Your task to perform on an android device: turn on improve location accuracy Image 0: 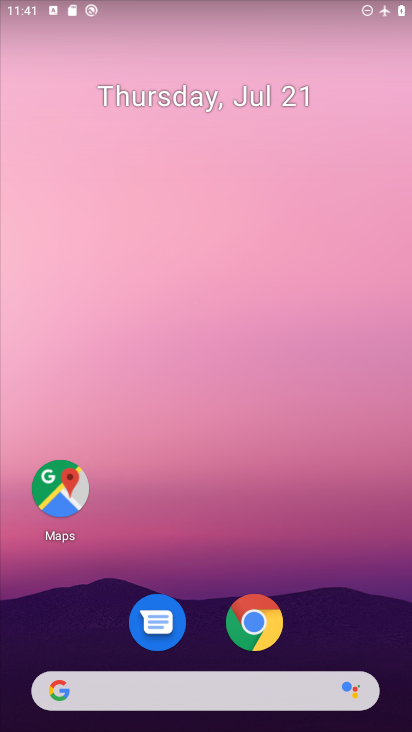
Step 0: drag from (154, 484) to (302, 120)
Your task to perform on an android device: turn on improve location accuracy Image 1: 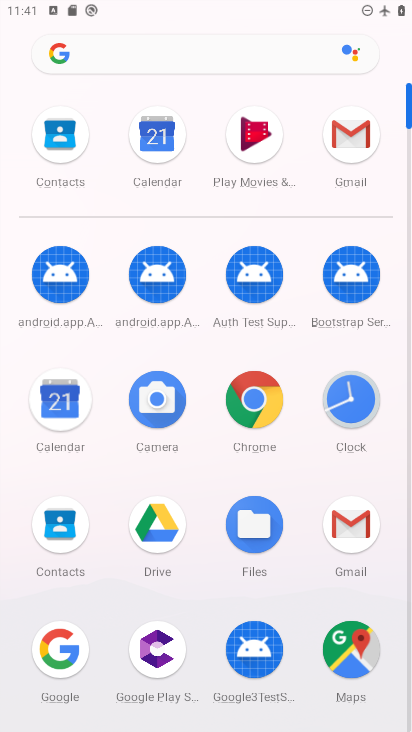
Step 1: drag from (210, 547) to (355, 29)
Your task to perform on an android device: turn on improve location accuracy Image 2: 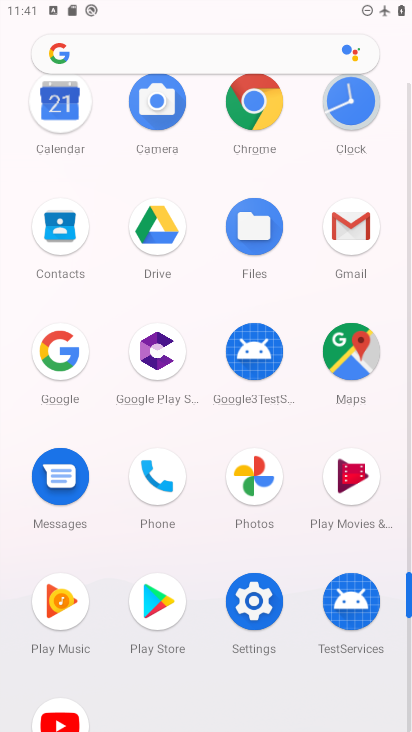
Step 2: click (269, 590)
Your task to perform on an android device: turn on improve location accuracy Image 3: 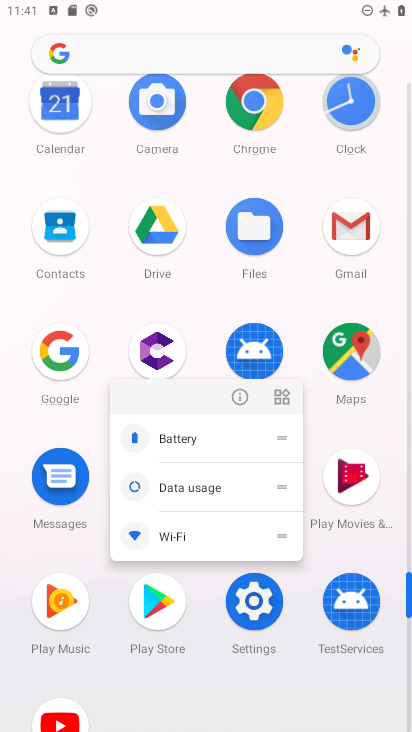
Step 3: click (269, 590)
Your task to perform on an android device: turn on improve location accuracy Image 4: 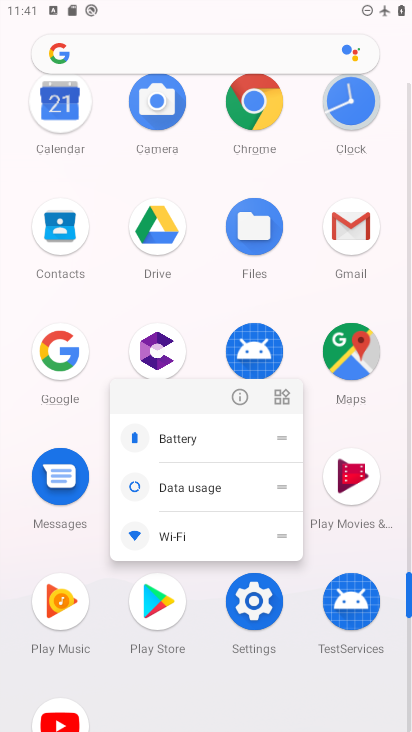
Step 4: click (269, 590)
Your task to perform on an android device: turn on improve location accuracy Image 5: 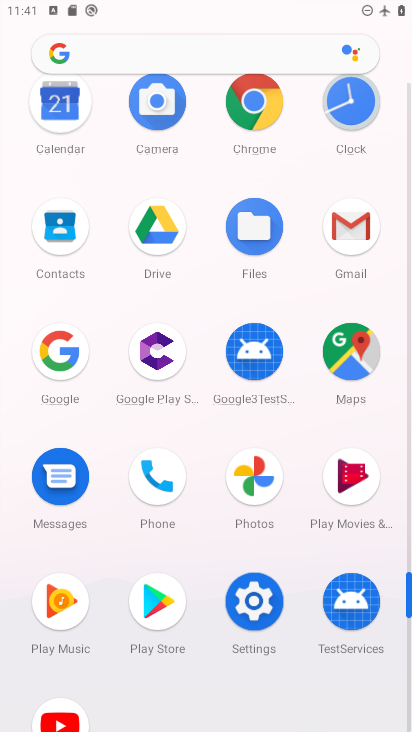
Step 5: click (269, 590)
Your task to perform on an android device: turn on improve location accuracy Image 6: 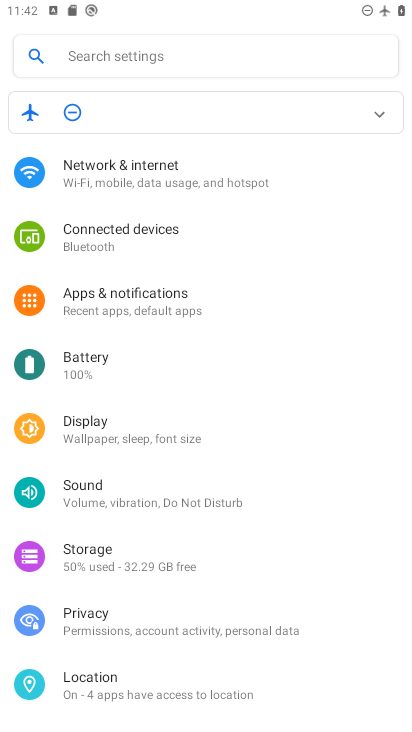
Step 6: click (111, 685)
Your task to perform on an android device: turn on improve location accuracy Image 7: 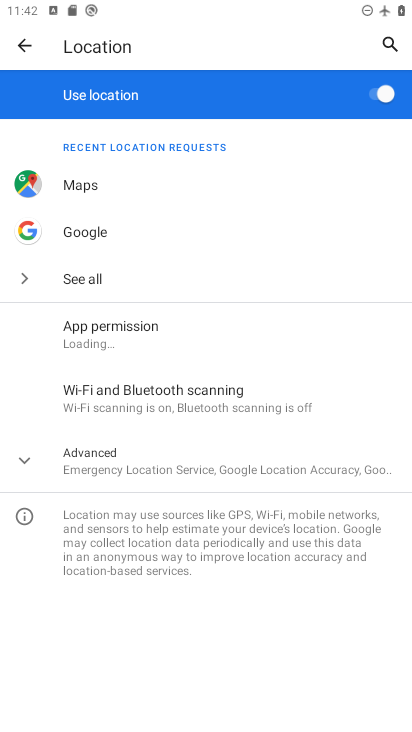
Step 7: click (284, 464)
Your task to perform on an android device: turn on improve location accuracy Image 8: 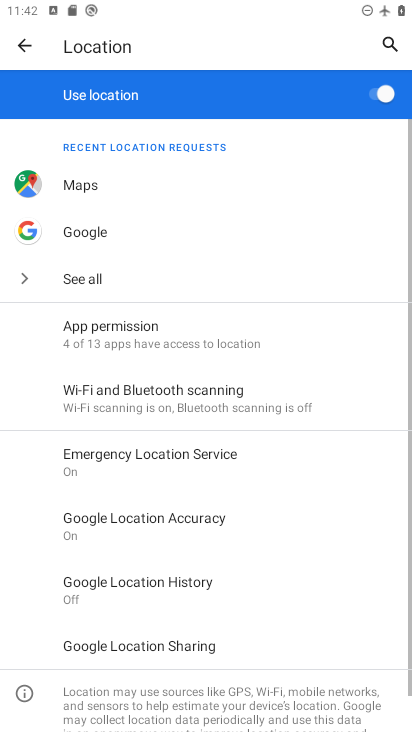
Step 8: click (206, 516)
Your task to perform on an android device: turn on improve location accuracy Image 9: 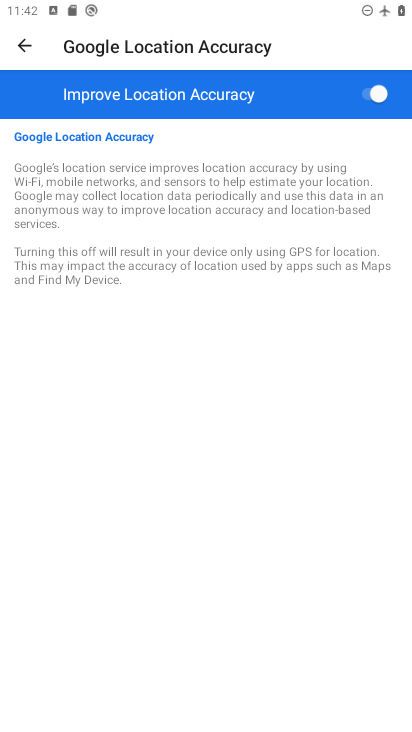
Step 9: task complete